Your task to perform on an android device: turn off data saver in the chrome app Image 0: 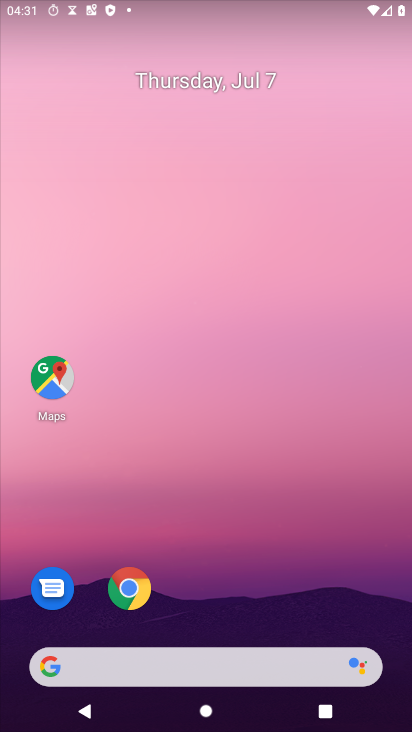
Step 0: press home button
Your task to perform on an android device: turn off data saver in the chrome app Image 1: 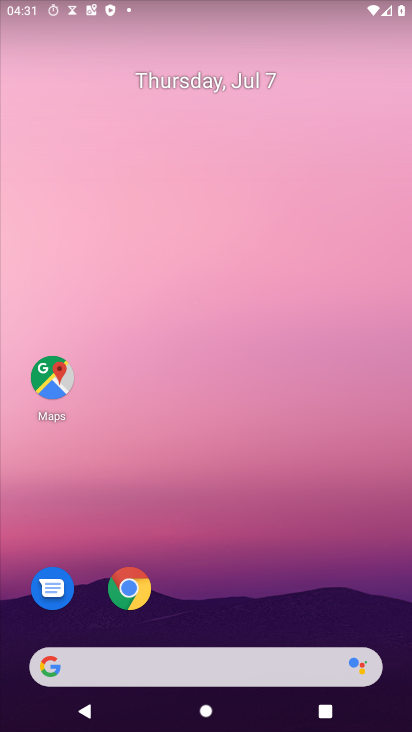
Step 1: drag from (263, 612) to (276, 329)
Your task to perform on an android device: turn off data saver in the chrome app Image 2: 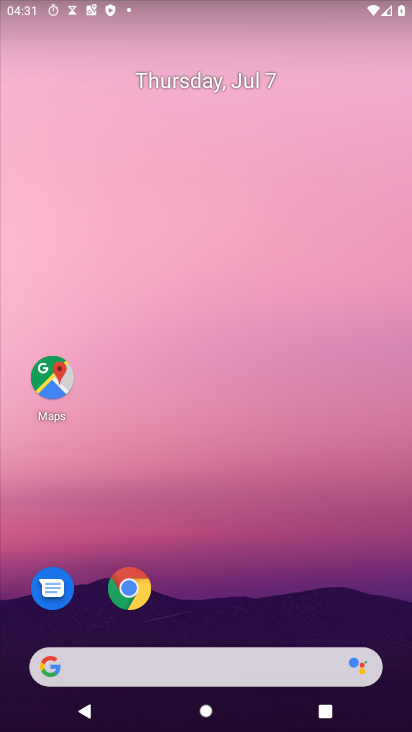
Step 2: drag from (219, 607) to (225, 170)
Your task to perform on an android device: turn off data saver in the chrome app Image 3: 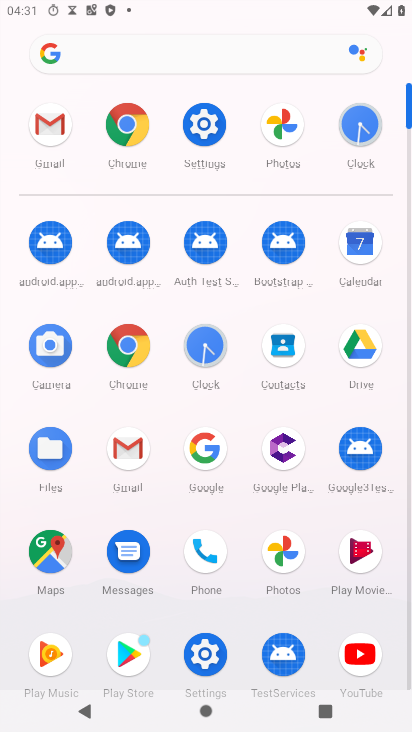
Step 3: click (130, 121)
Your task to perform on an android device: turn off data saver in the chrome app Image 4: 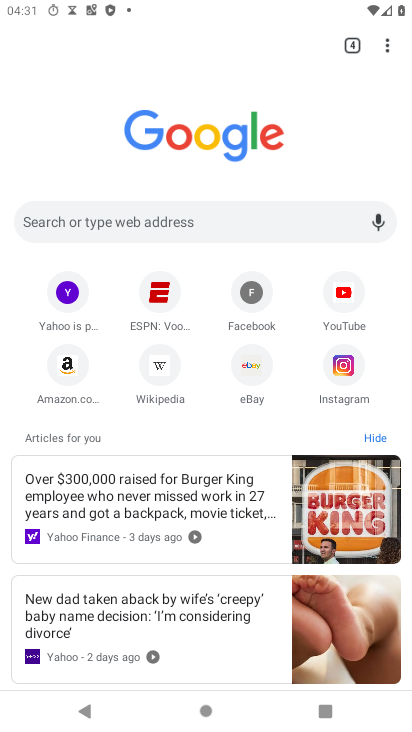
Step 4: drag from (384, 46) to (211, 371)
Your task to perform on an android device: turn off data saver in the chrome app Image 5: 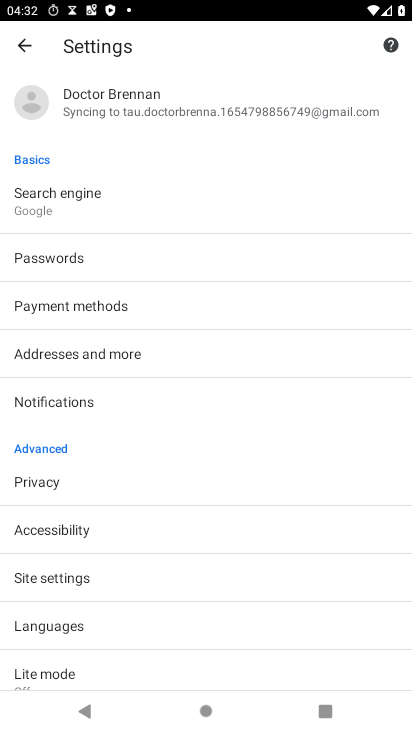
Step 5: drag from (188, 668) to (208, 399)
Your task to perform on an android device: turn off data saver in the chrome app Image 6: 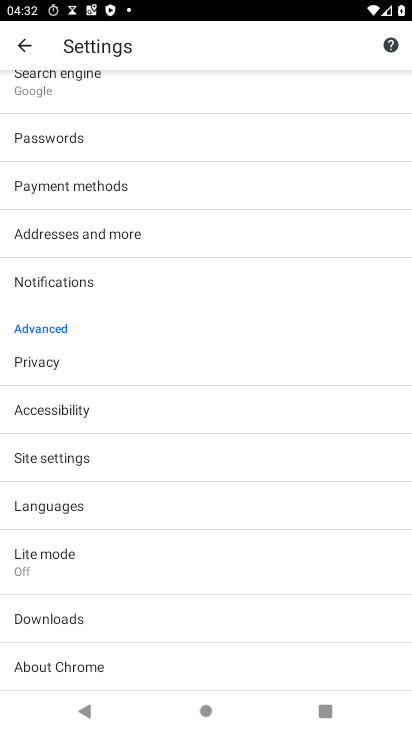
Step 6: click (48, 560)
Your task to perform on an android device: turn off data saver in the chrome app Image 7: 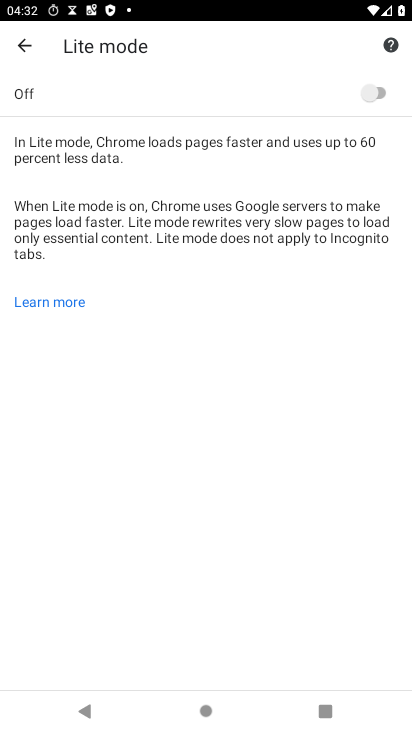
Step 7: click (48, 560)
Your task to perform on an android device: turn off data saver in the chrome app Image 8: 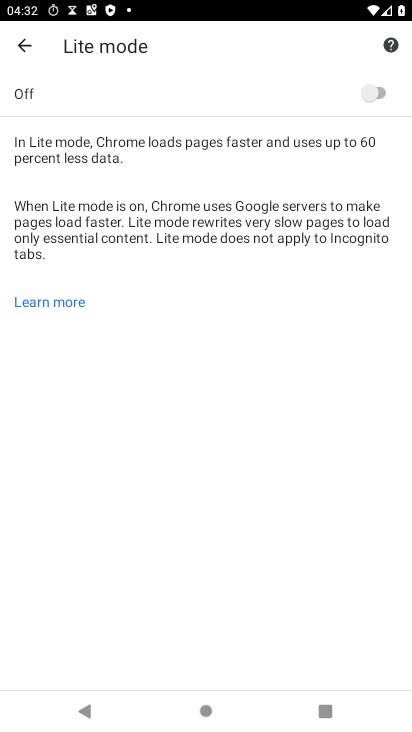
Step 8: task complete